Your task to perform on an android device: Add dell xps to the cart on costco.com, then select checkout. Image 0: 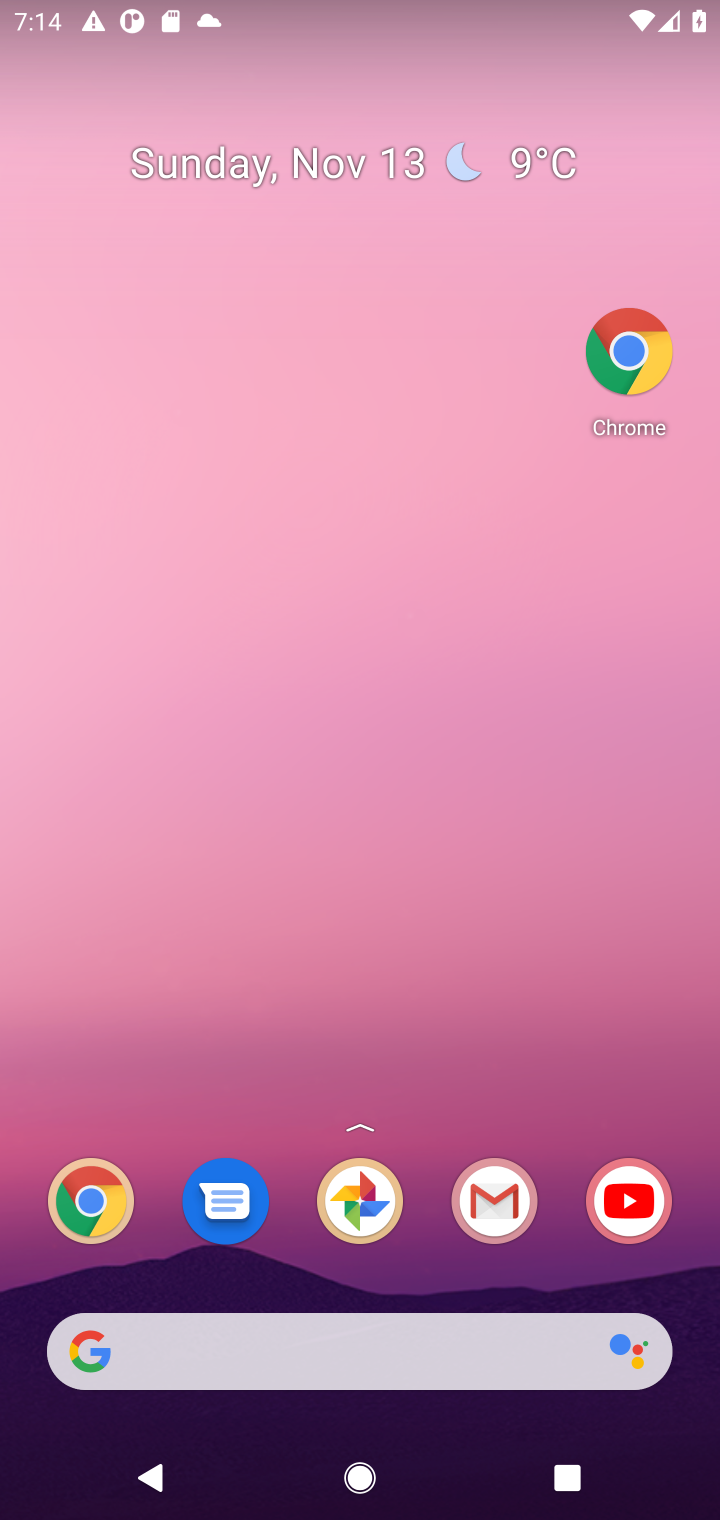
Step 0: drag from (544, 116) to (544, 40)
Your task to perform on an android device: Add dell xps to the cart on costco.com, then select checkout. Image 1: 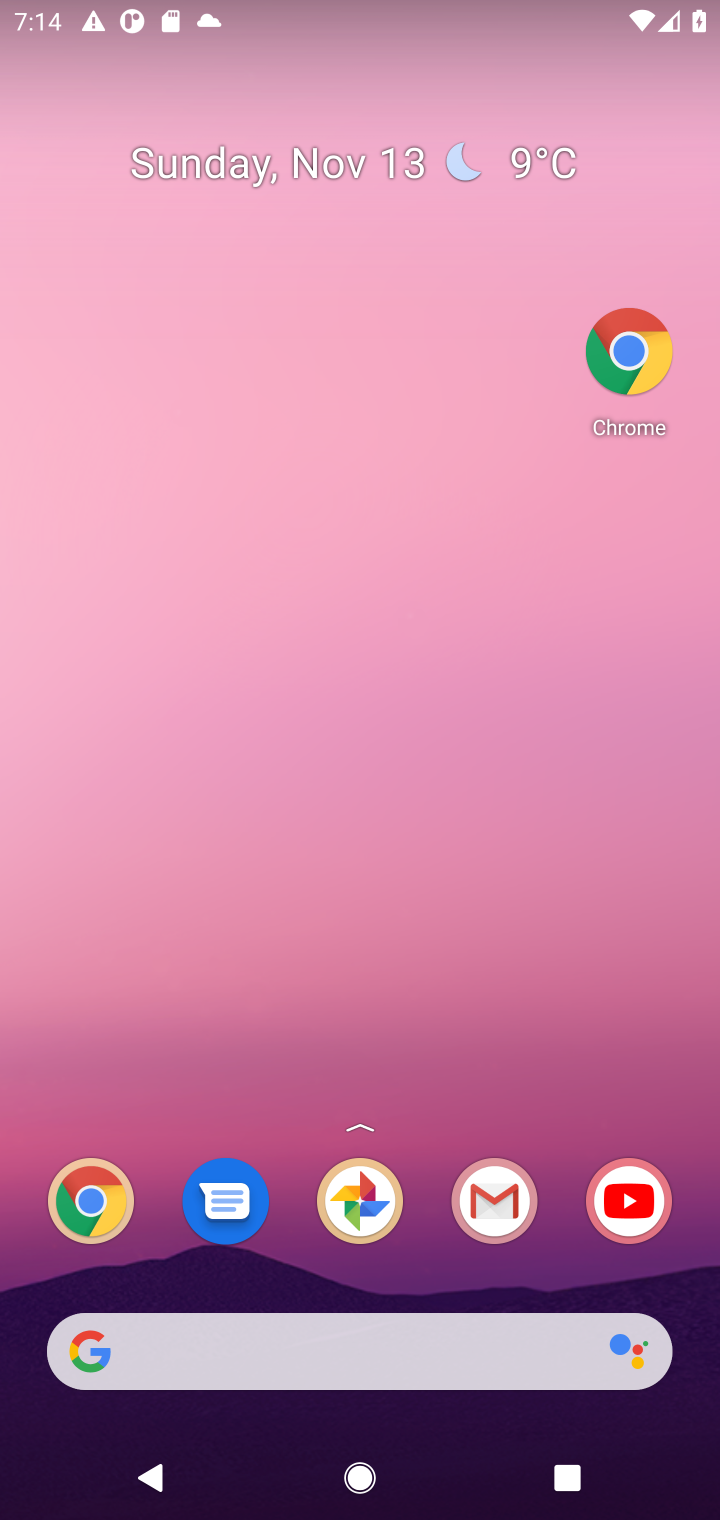
Step 1: drag from (444, 1247) to (422, 284)
Your task to perform on an android device: Add dell xps to the cart on costco.com, then select checkout. Image 2: 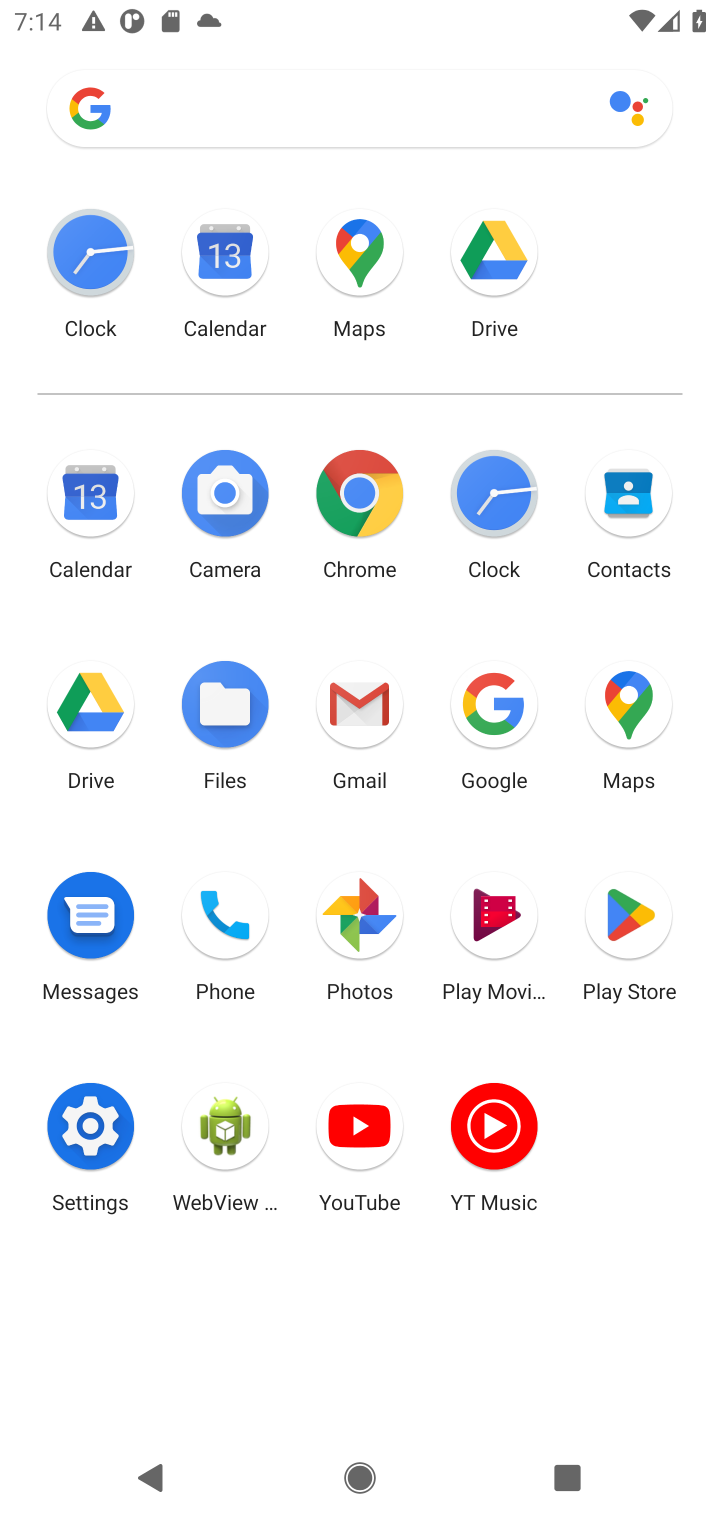
Step 2: click (348, 487)
Your task to perform on an android device: Add dell xps to the cart on costco.com, then select checkout. Image 3: 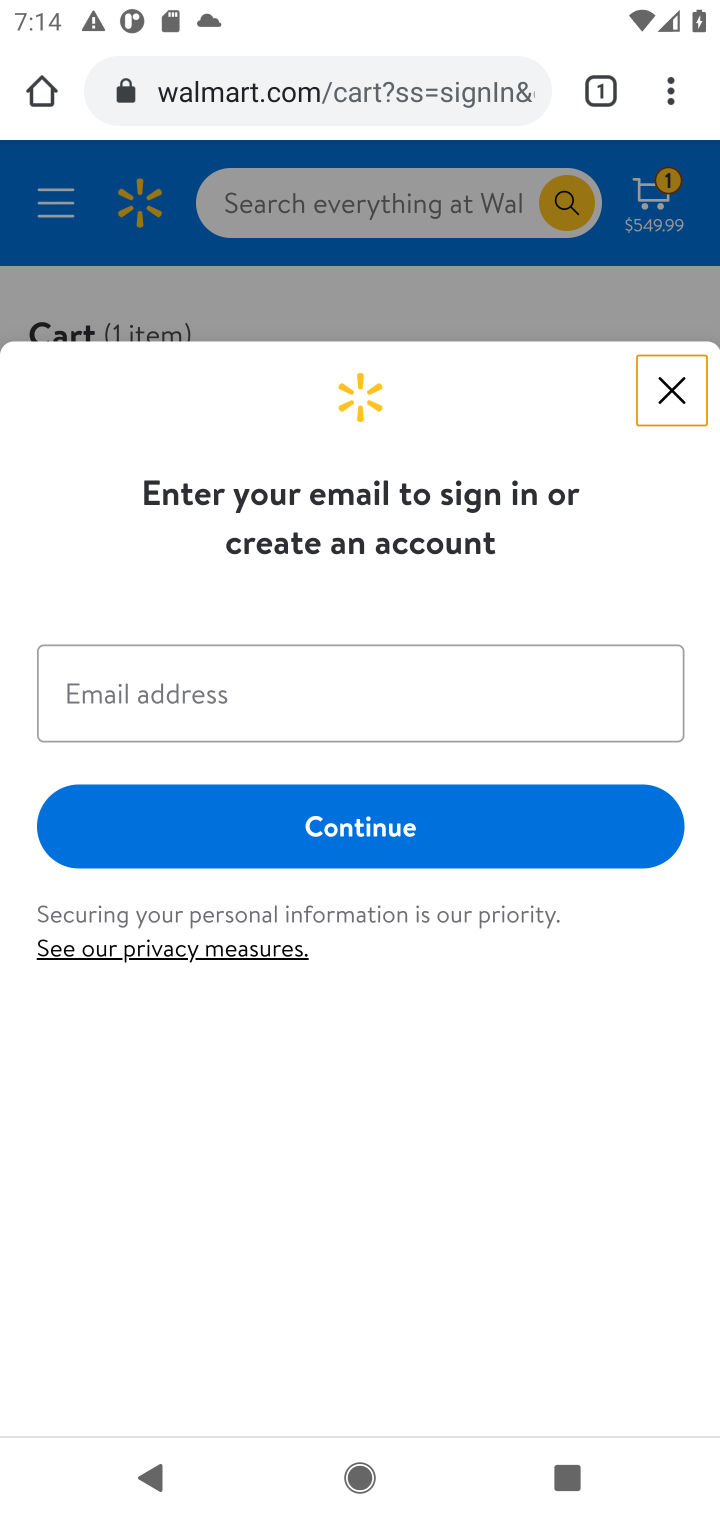
Step 3: click (431, 100)
Your task to perform on an android device: Add dell xps to the cart on costco.com, then select checkout. Image 4: 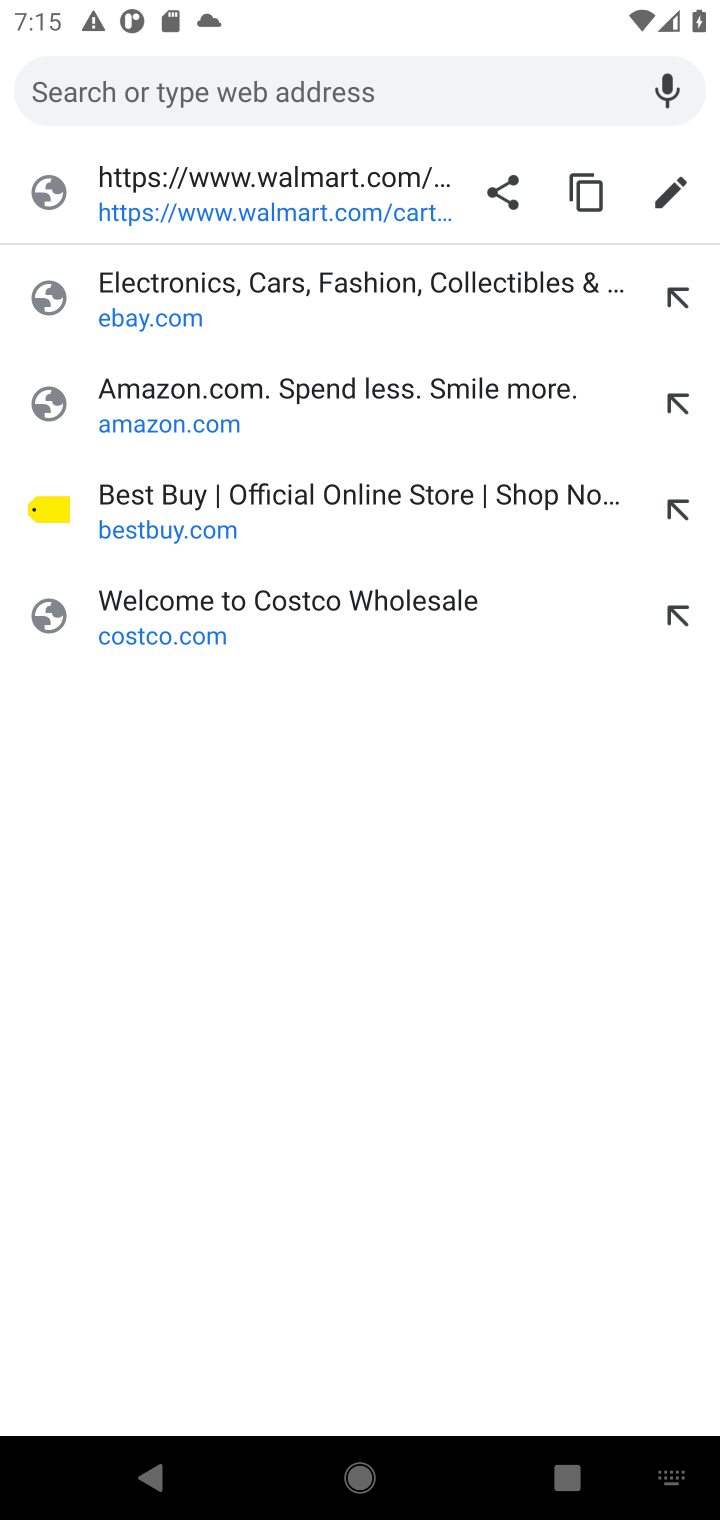
Step 4: type "costco.com"
Your task to perform on an android device: Add dell xps to the cart on costco.com, then select checkout. Image 5: 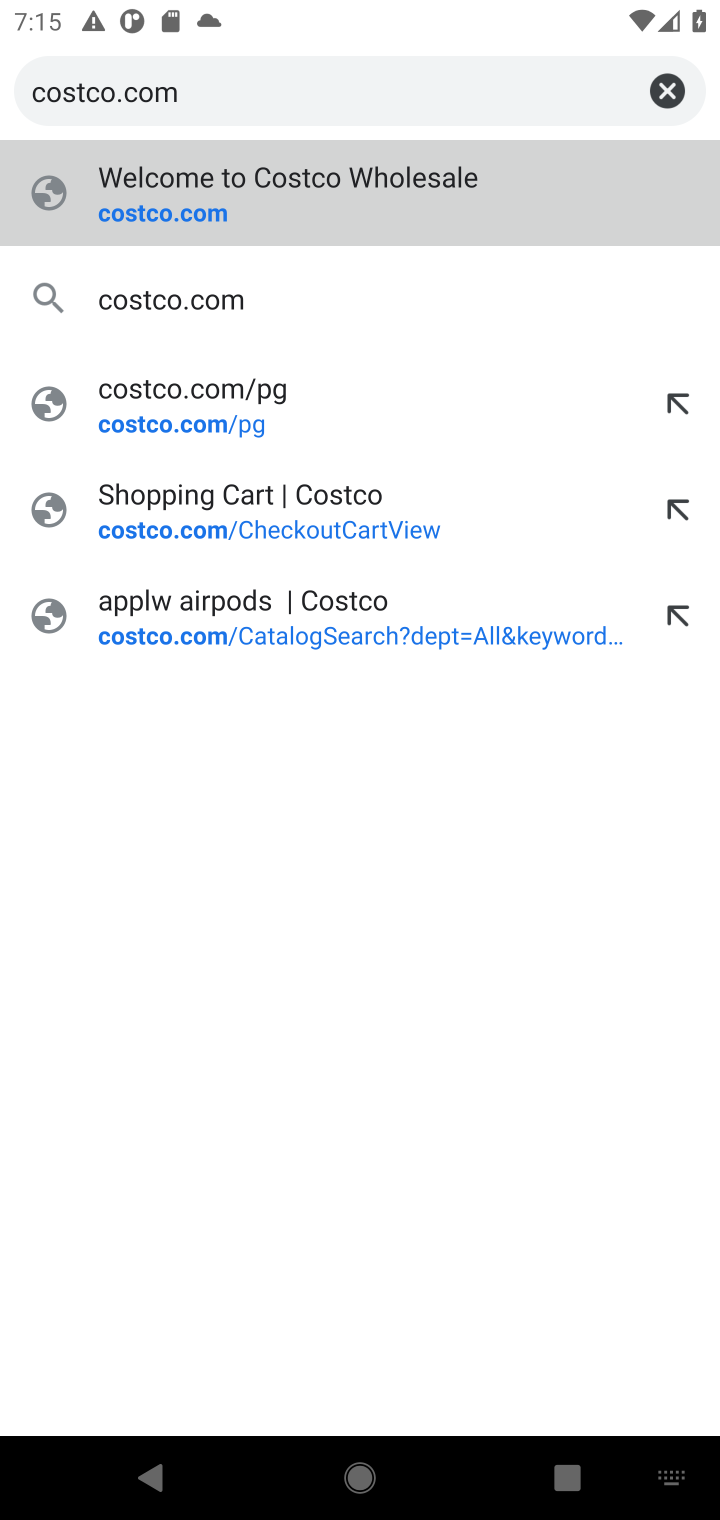
Step 5: press enter
Your task to perform on an android device: Add dell xps to the cart on costco.com, then select checkout. Image 6: 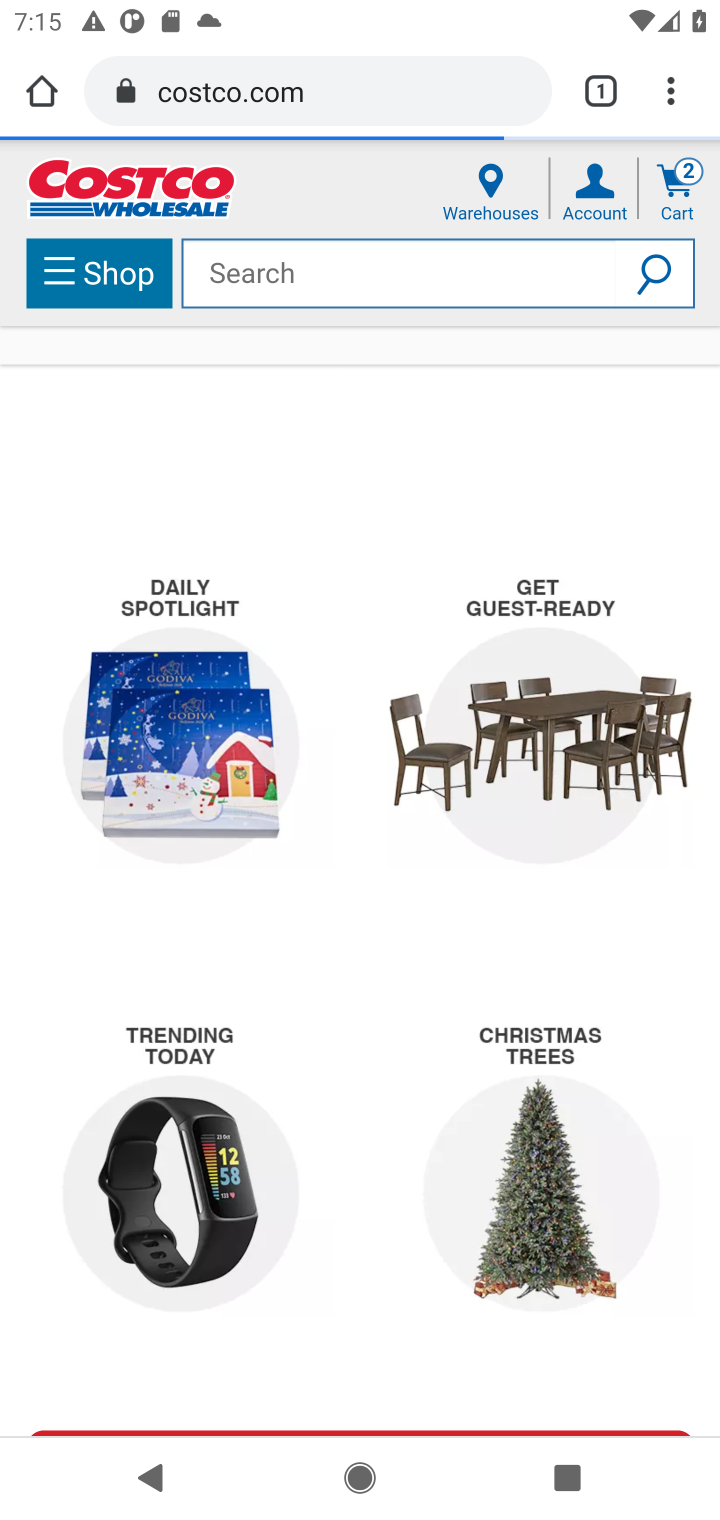
Step 6: click (528, 276)
Your task to perform on an android device: Add dell xps to the cart on costco.com, then select checkout. Image 7: 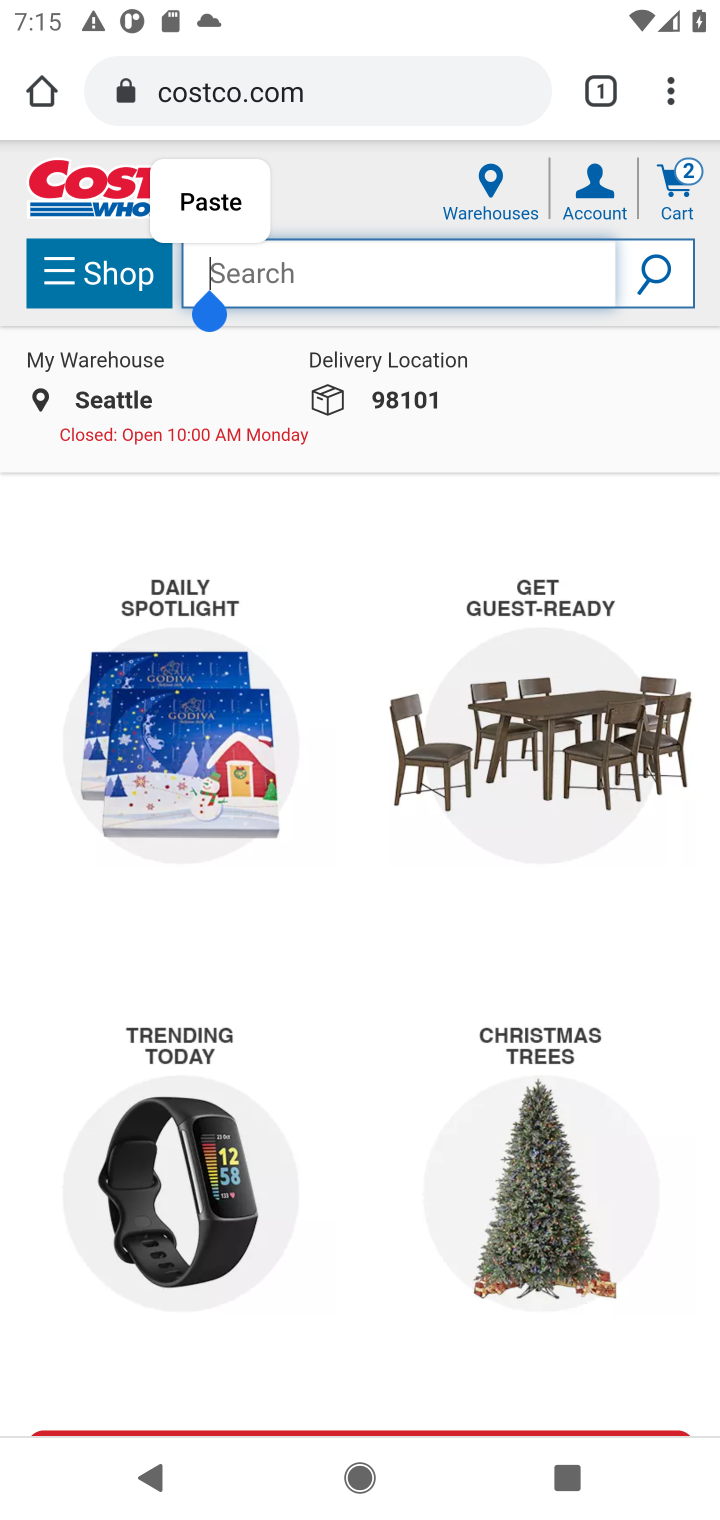
Step 7: type "dell xps"
Your task to perform on an android device: Add dell xps to the cart on costco.com, then select checkout. Image 8: 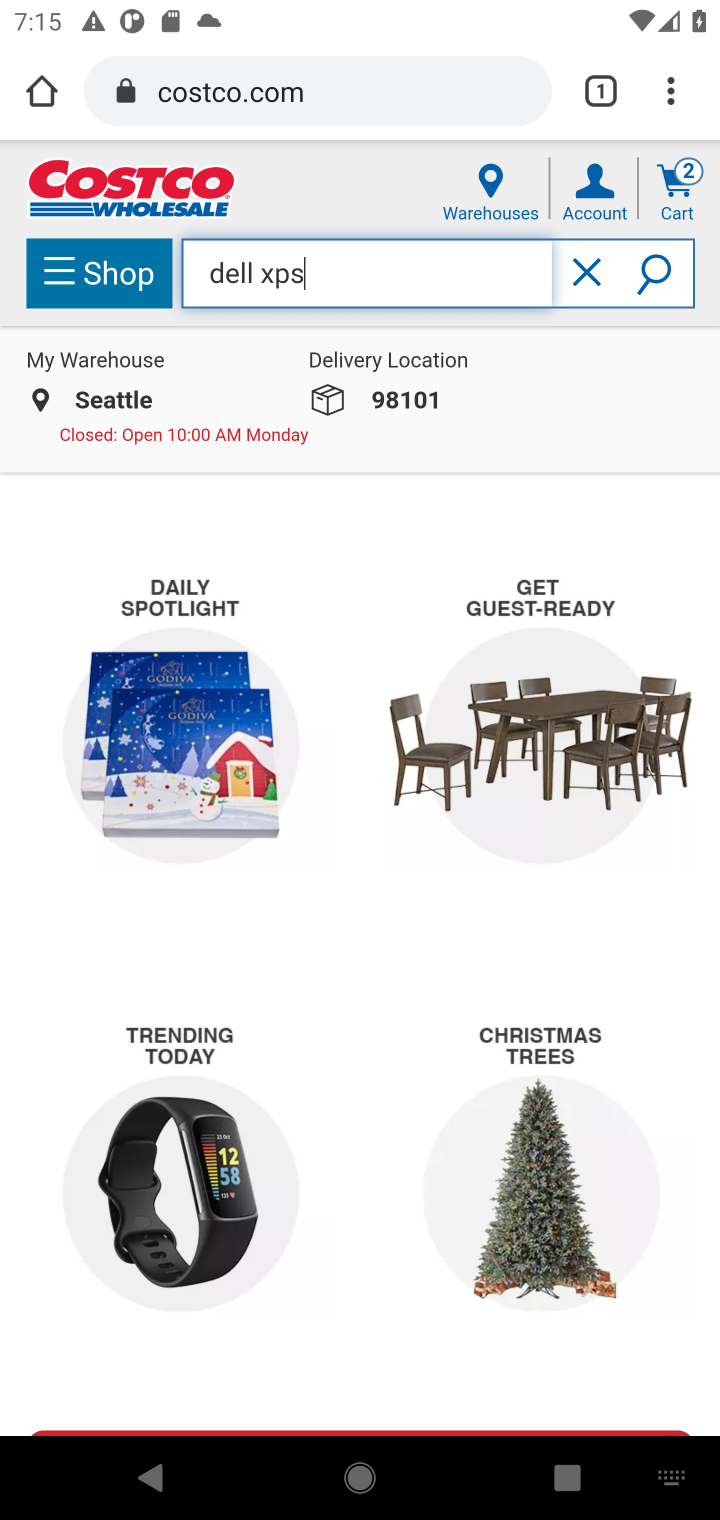
Step 8: press enter
Your task to perform on an android device: Add dell xps to the cart on costco.com, then select checkout. Image 9: 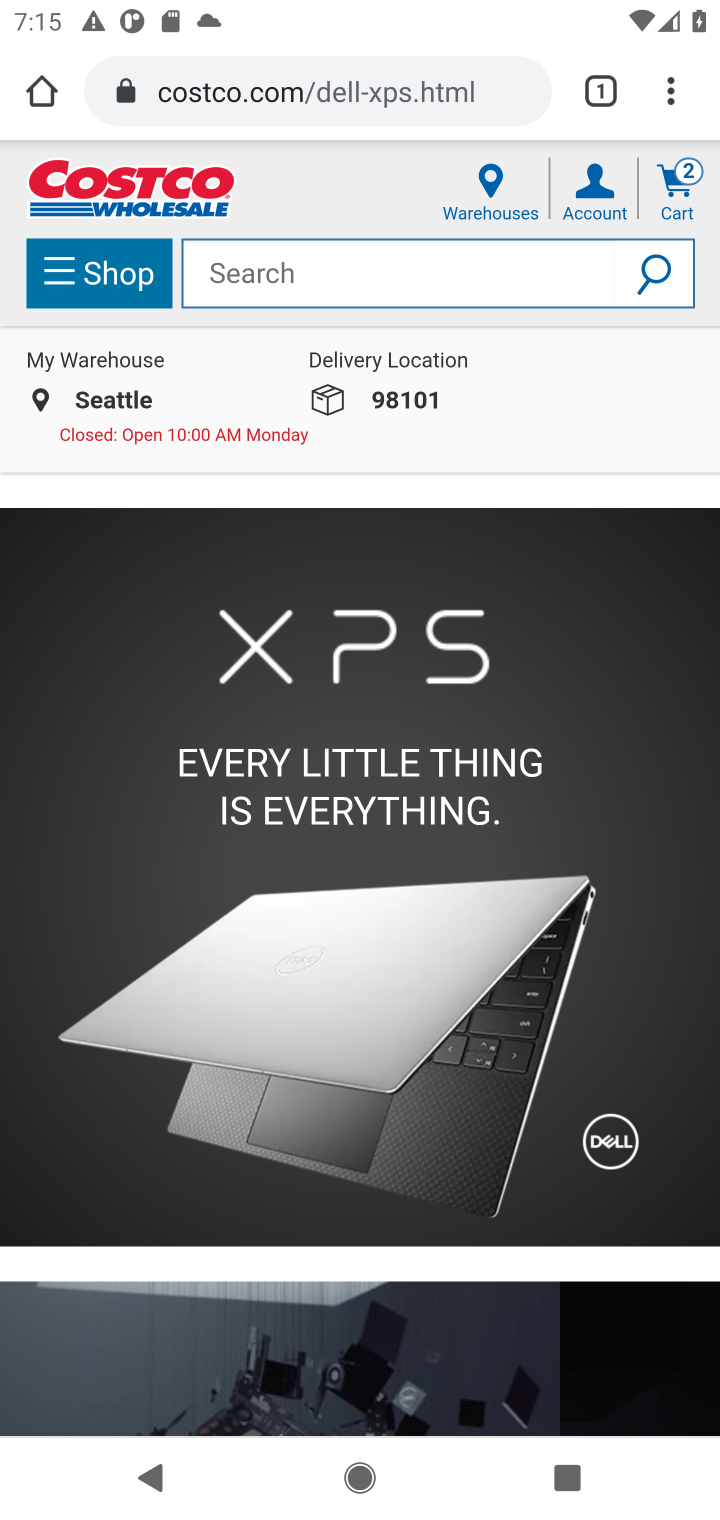
Step 9: drag from (357, 1176) to (363, 414)
Your task to perform on an android device: Add dell xps to the cart on costco.com, then select checkout. Image 10: 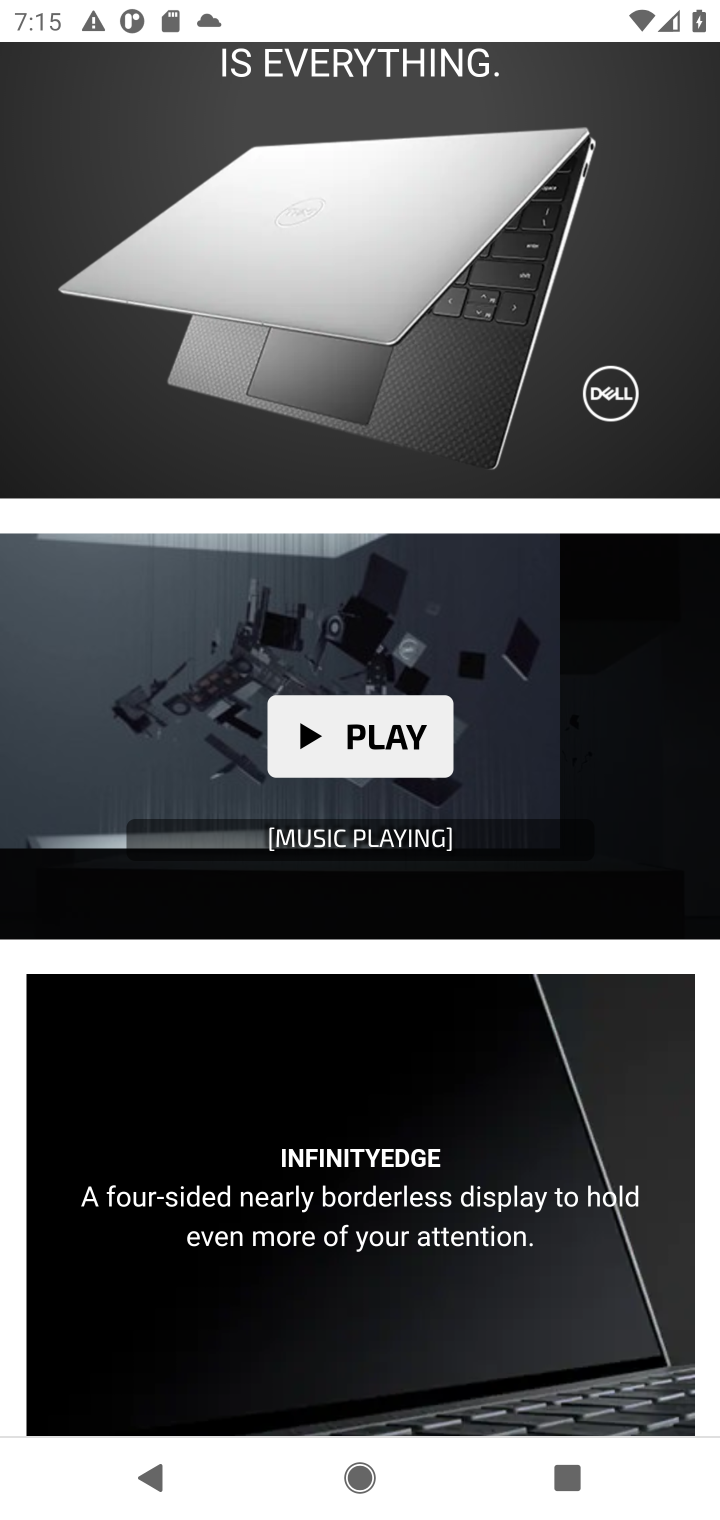
Step 10: drag from (305, 1146) to (386, 386)
Your task to perform on an android device: Add dell xps to the cart on costco.com, then select checkout. Image 11: 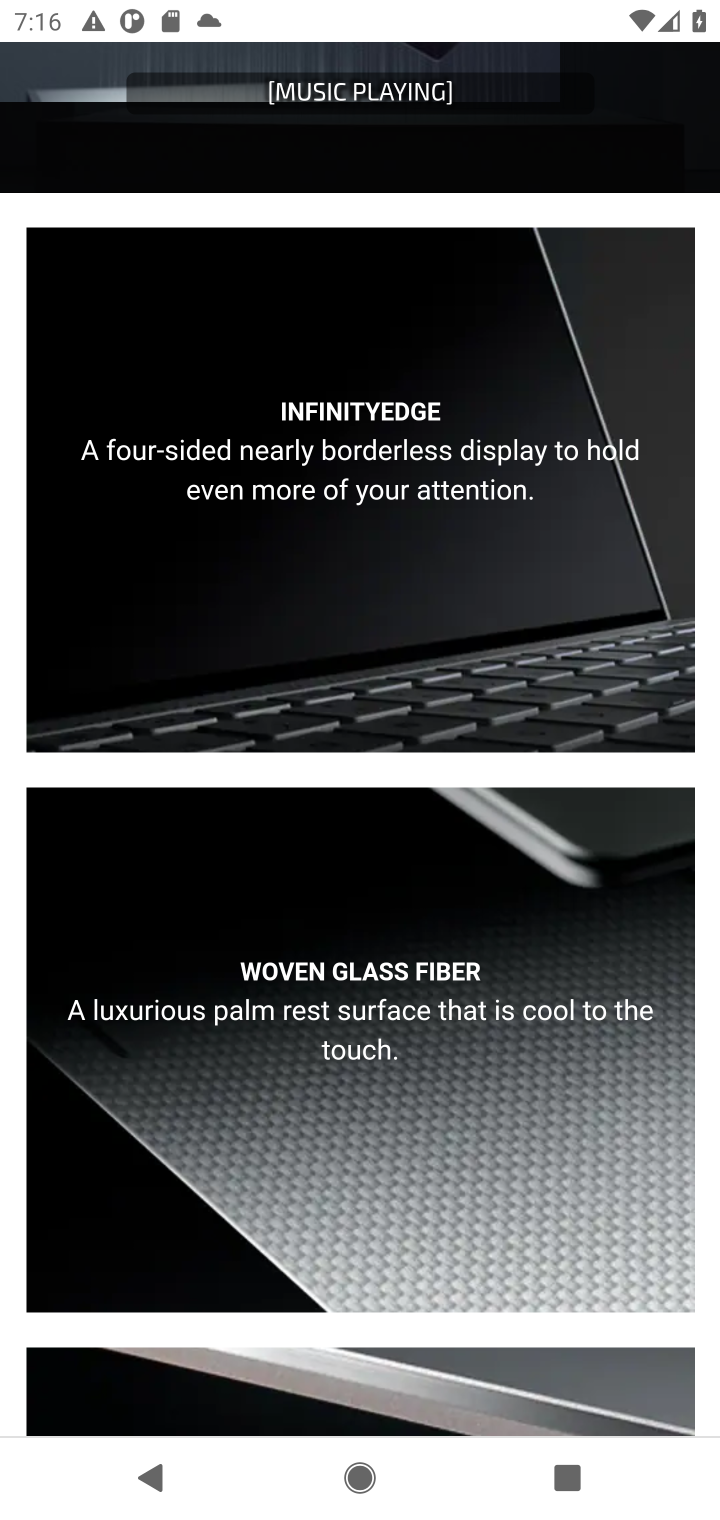
Step 11: drag from (409, 1070) to (439, 187)
Your task to perform on an android device: Add dell xps to the cart on costco.com, then select checkout. Image 12: 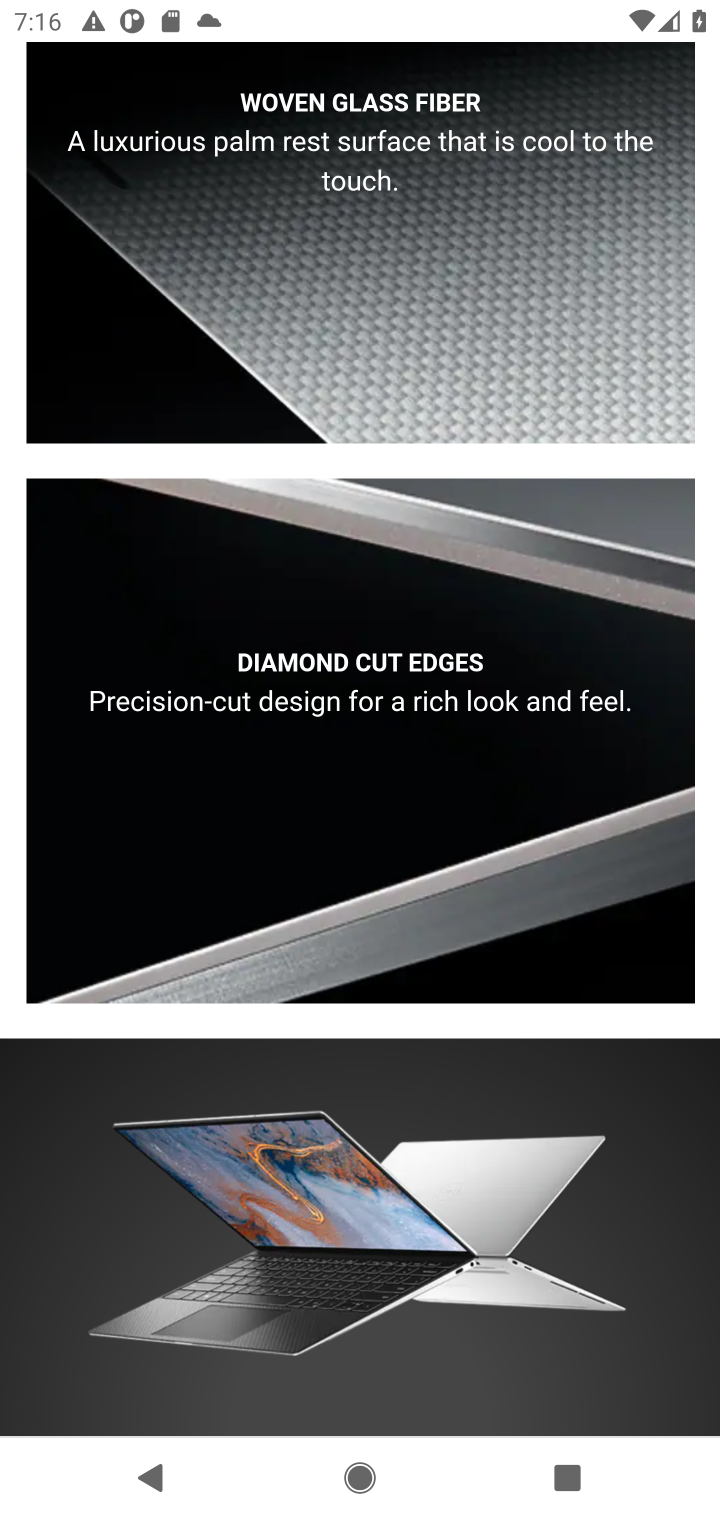
Step 12: drag from (305, 1031) to (555, 182)
Your task to perform on an android device: Add dell xps to the cart on costco.com, then select checkout. Image 13: 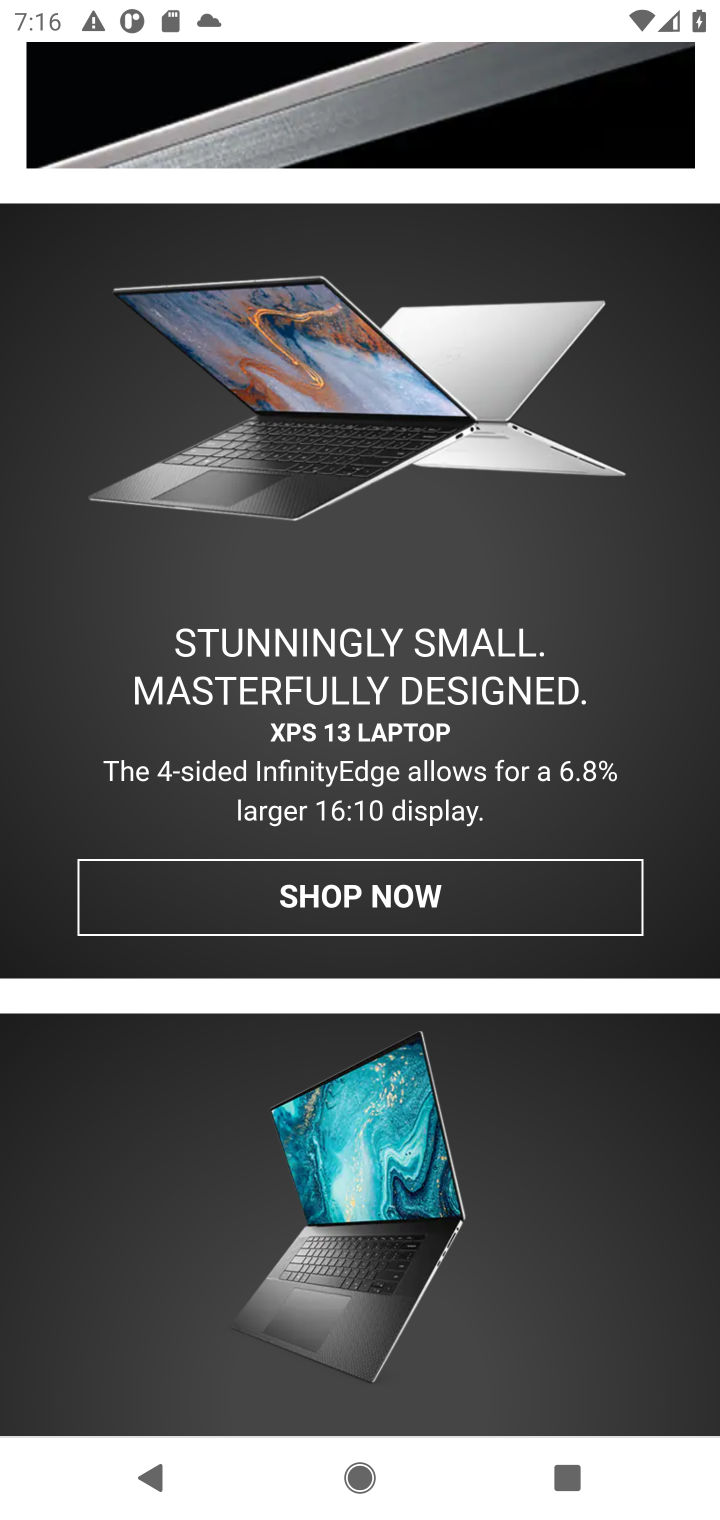
Step 13: click (396, 899)
Your task to perform on an android device: Add dell xps to the cart on costco.com, then select checkout. Image 14: 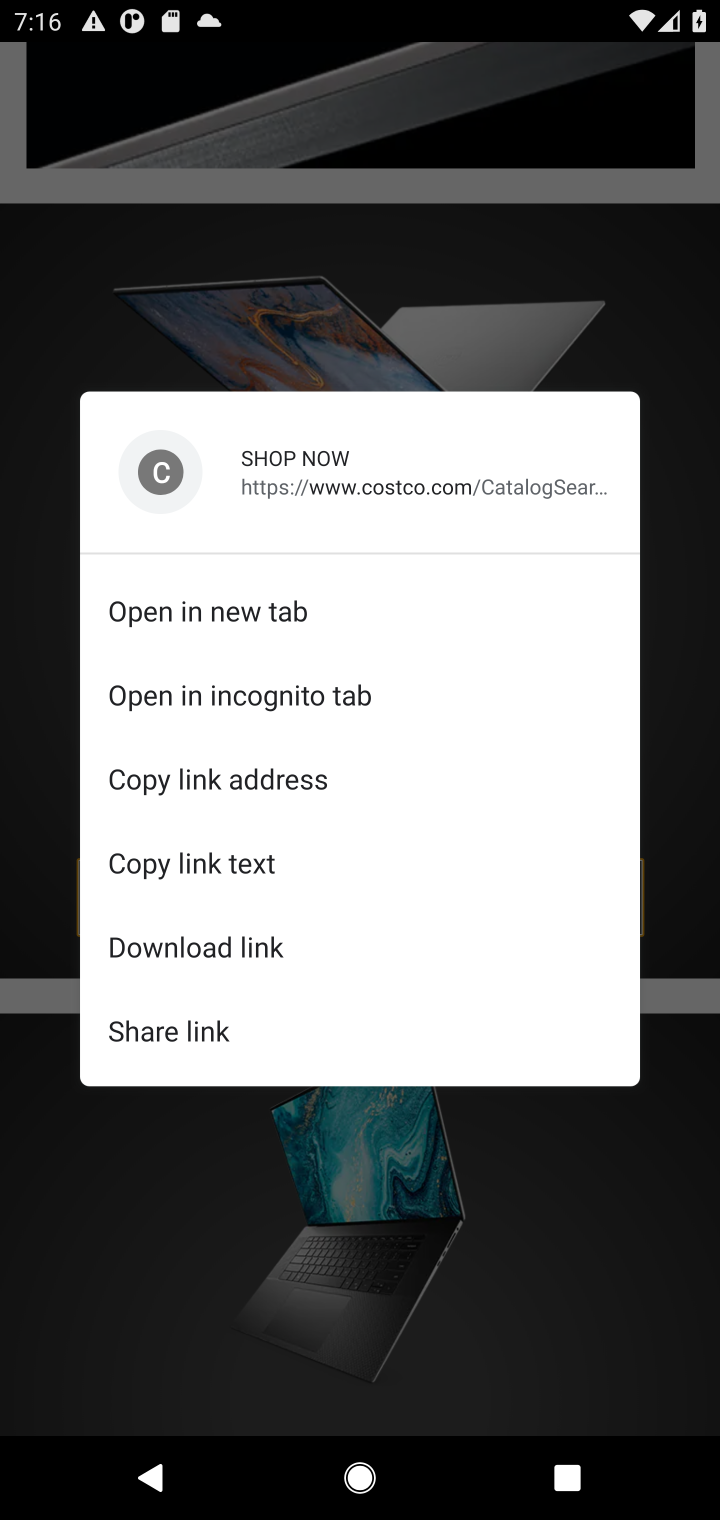
Step 14: click (109, 1176)
Your task to perform on an android device: Add dell xps to the cart on costco.com, then select checkout. Image 15: 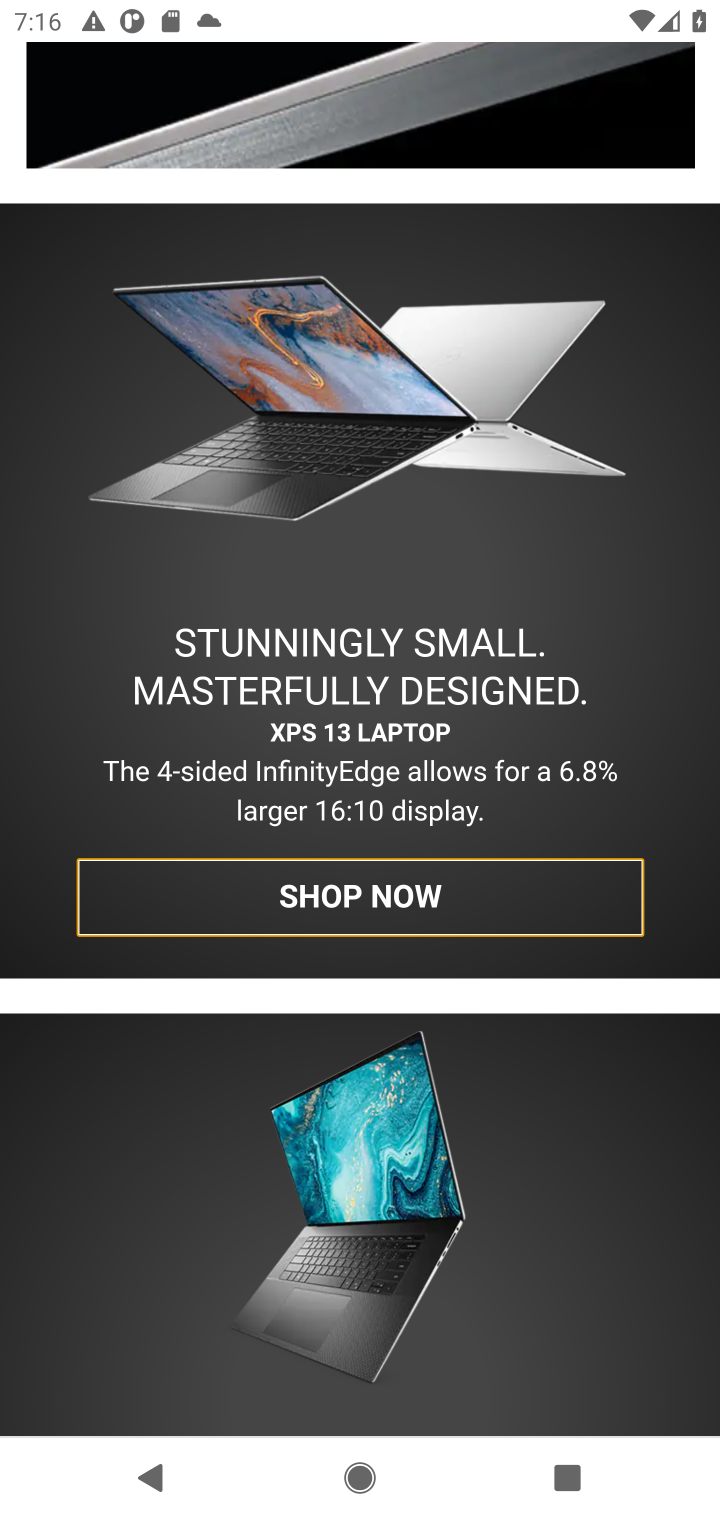
Step 15: click (350, 899)
Your task to perform on an android device: Add dell xps to the cart on costco.com, then select checkout. Image 16: 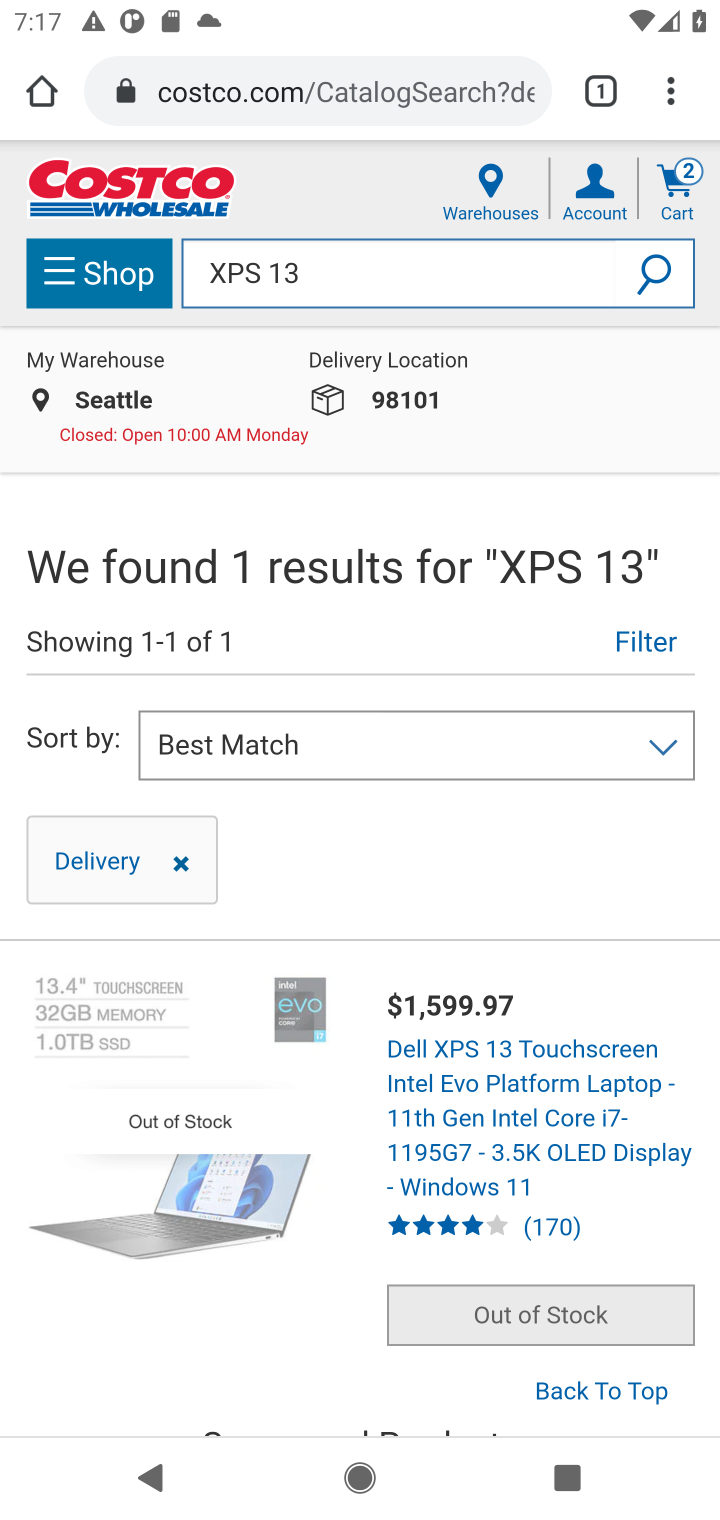
Step 16: drag from (535, 1262) to (580, 810)
Your task to perform on an android device: Add dell xps to the cart on costco.com, then select checkout. Image 17: 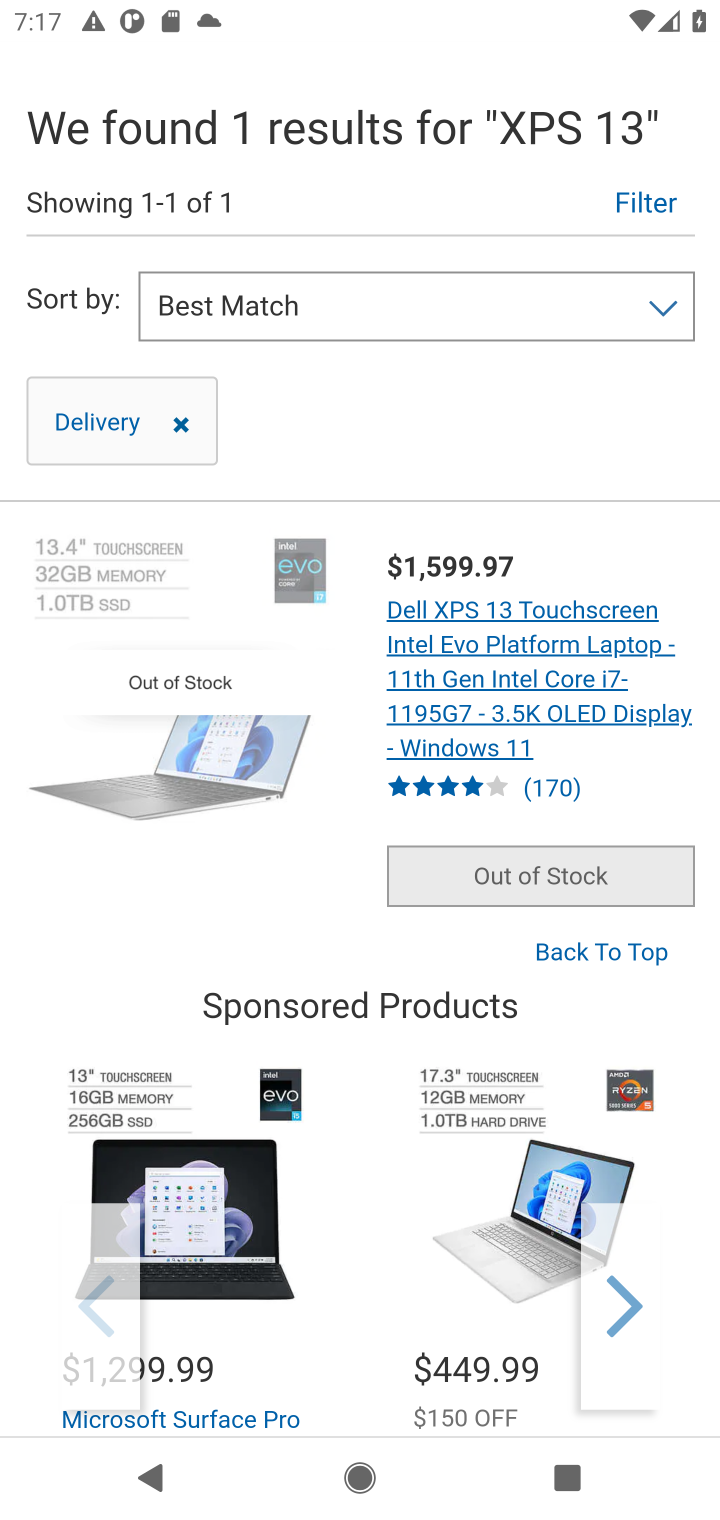
Step 17: click (598, 685)
Your task to perform on an android device: Add dell xps to the cart on costco.com, then select checkout. Image 18: 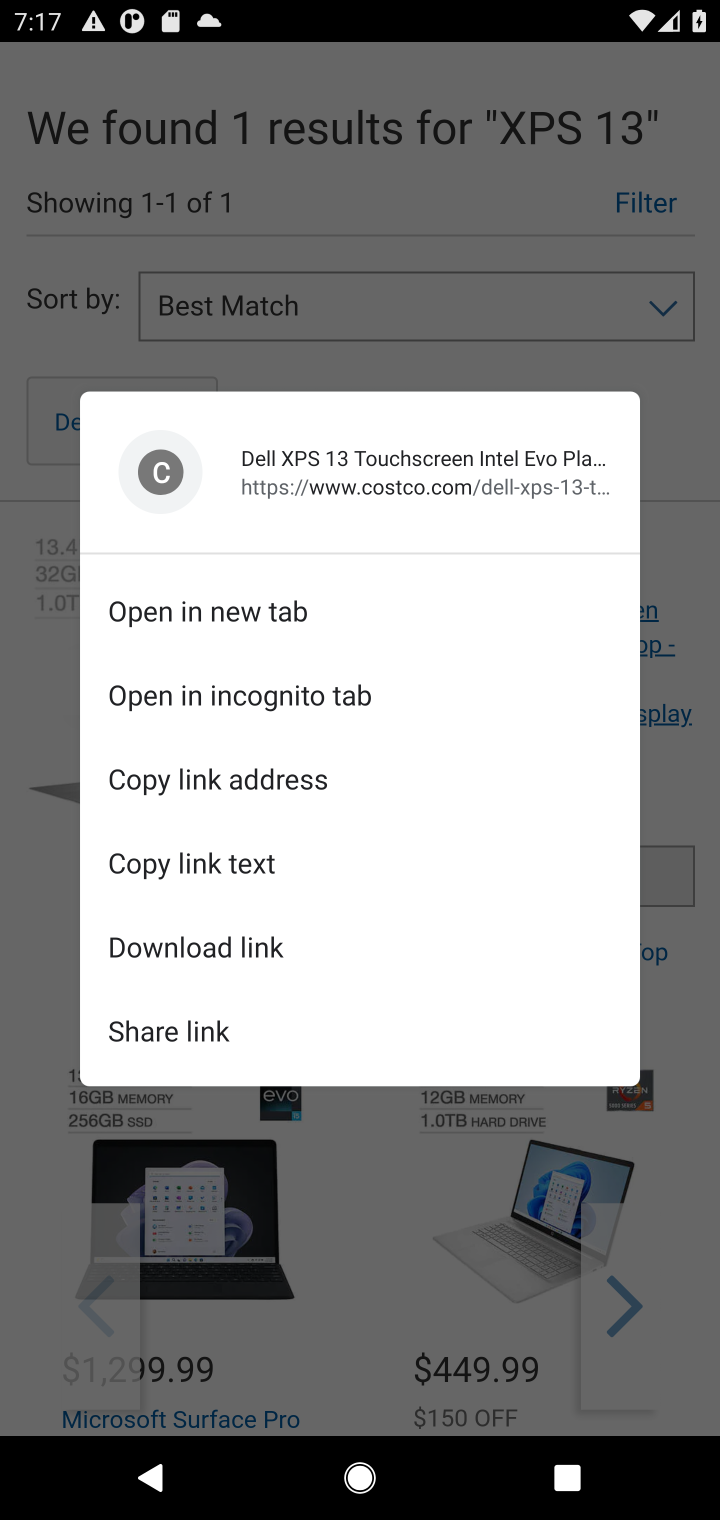
Step 18: click (521, 218)
Your task to perform on an android device: Add dell xps to the cart on costco.com, then select checkout. Image 19: 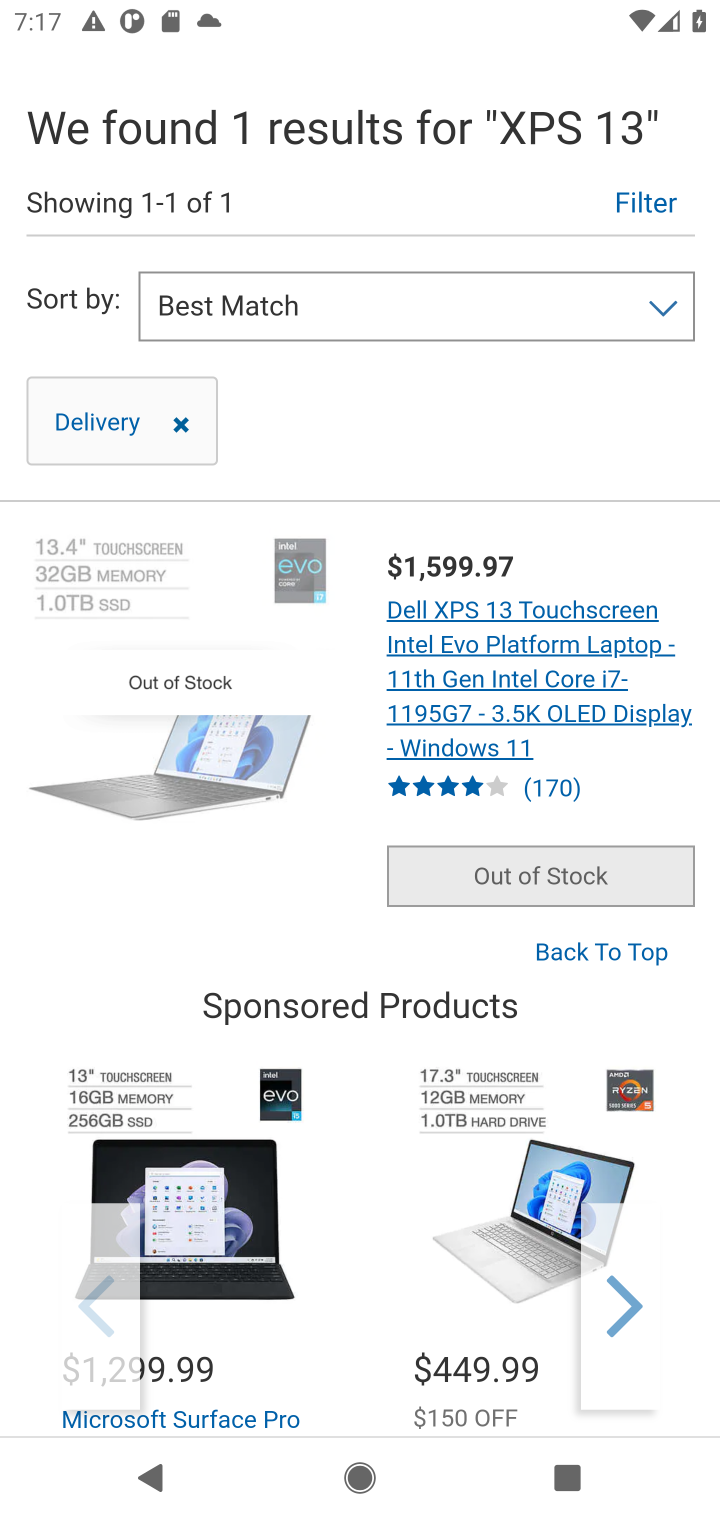
Step 19: click (595, 686)
Your task to perform on an android device: Add dell xps to the cart on costco.com, then select checkout. Image 20: 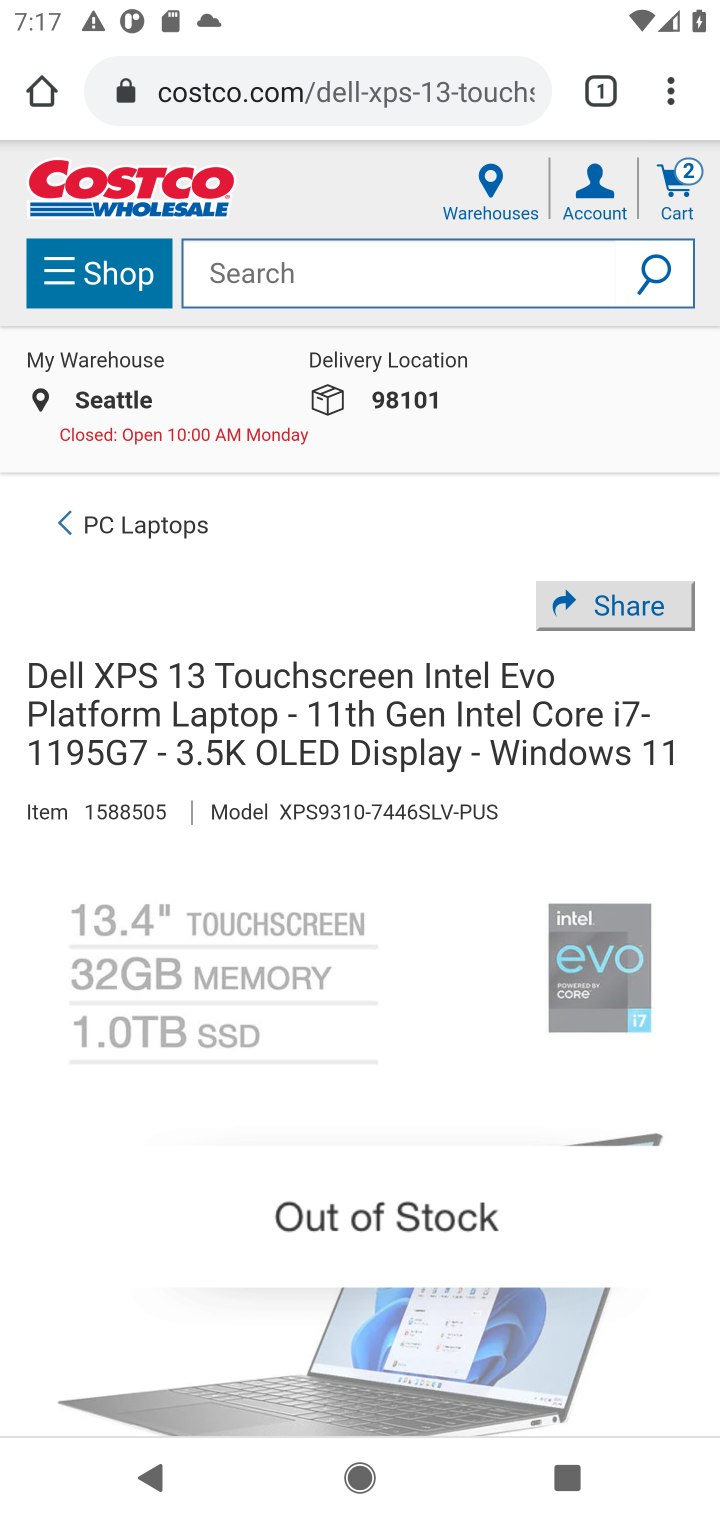
Step 20: task complete